Your task to perform on an android device: turn off smart reply in the gmail app Image 0: 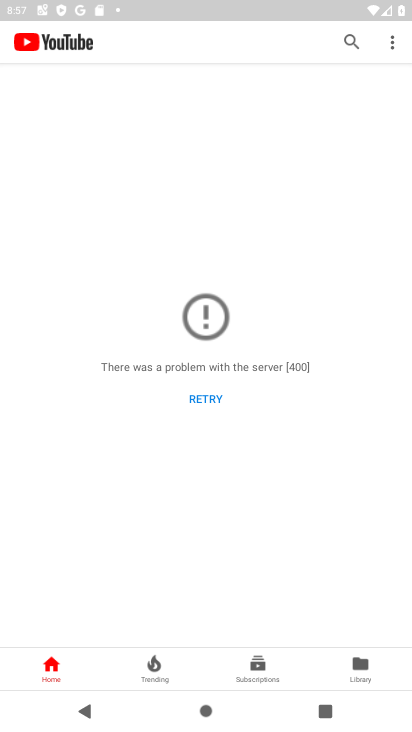
Step 0: press home button
Your task to perform on an android device: turn off smart reply in the gmail app Image 1: 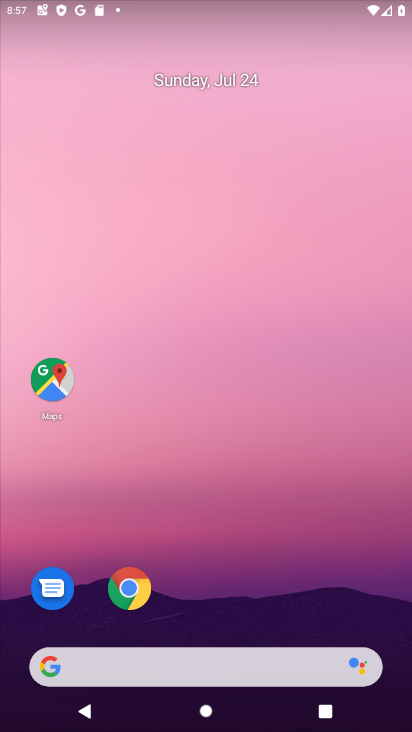
Step 1: drag from (209, 674) to (172, 111)
Your task to perform on an android device: turn off smart reply in the gmail app Image 2: 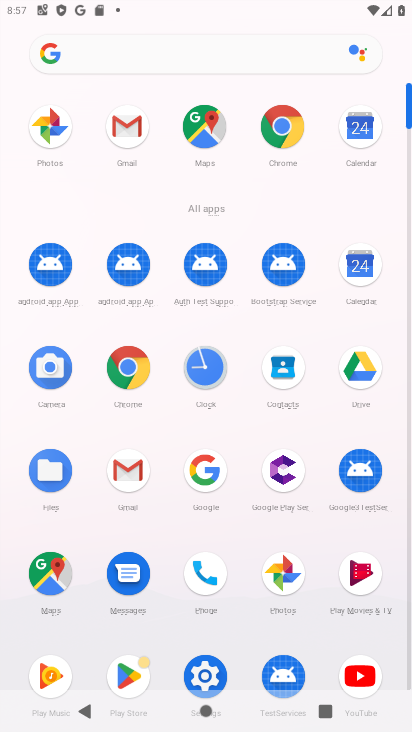
Step 2: click (128, 480)
Your task to perform on an android device: turn off smart reply in the gmail app Image 3: 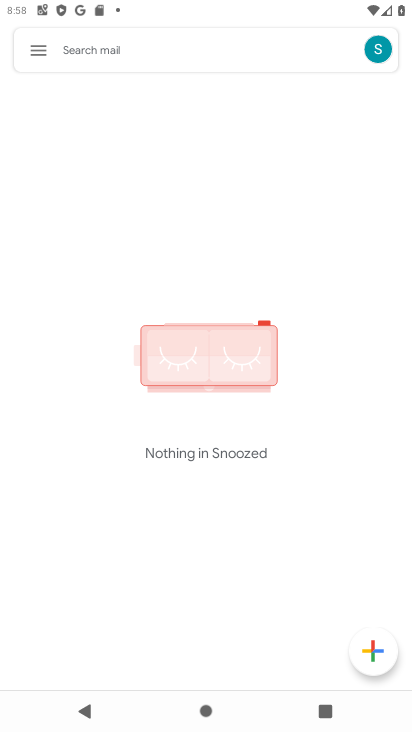
Step 3: click (32, 49)
Your task to perform on an android device: turn off smart reply in the gmail app Image 4: 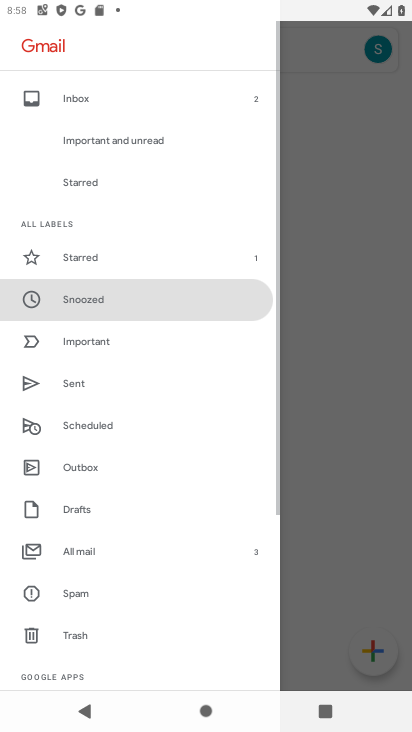
Step 4: drag from (116, 522) to (117, 228)
Your task to perform on an android device: turn off smart reply in the gmail app Image 5: 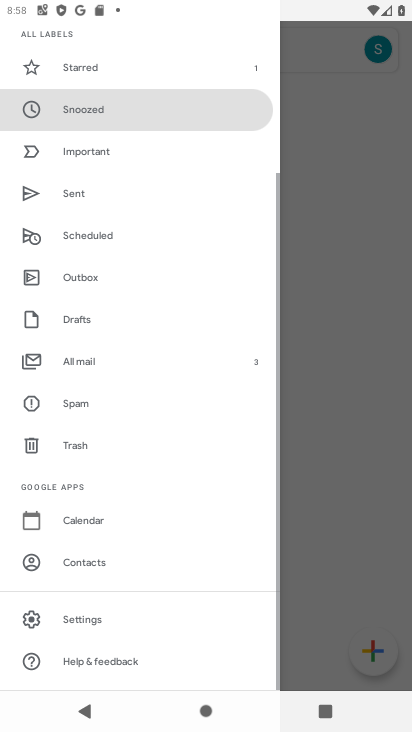
Step 5: click (102, 610)
Your task to perform on an android device: turn off smart reply in the gmail app Image 6: 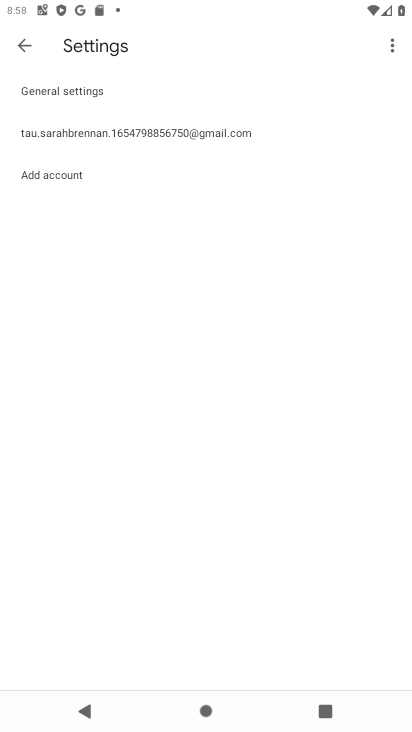
Step 6: click (94, 128)
Your task to perform on an android device: turn off smart reply in the gmail app Image 7: 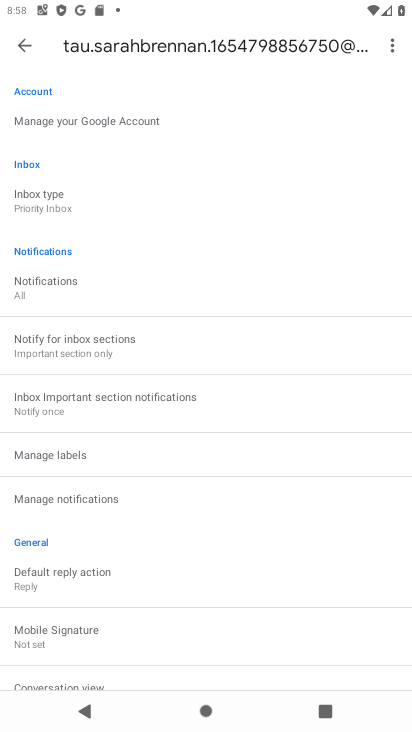
Step 7: drag from (141, 590) to (142, 137)
Your task to perform on an android device: turn off smart reply in the gmail app Image 8: 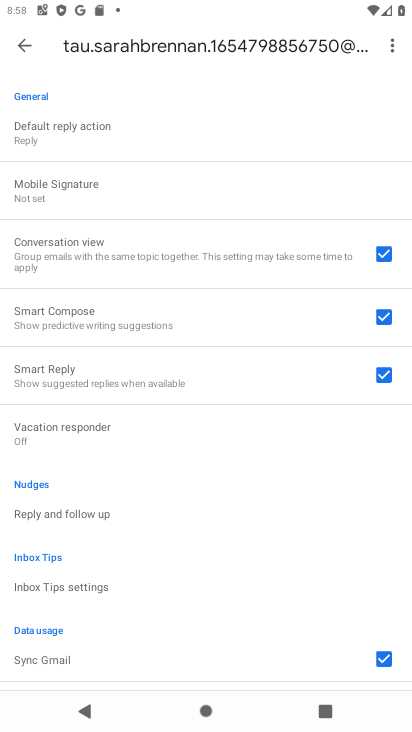
Step 8: click (376, 376)
Your task to perform on an android device: turn off smart reply in the gmail app Image 9: 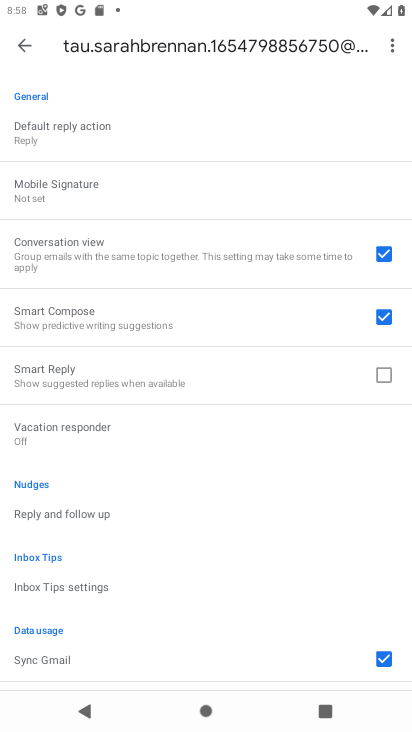
Step 9: task complete